Your task to perform on an android device: open device folders in google photos Image 0: 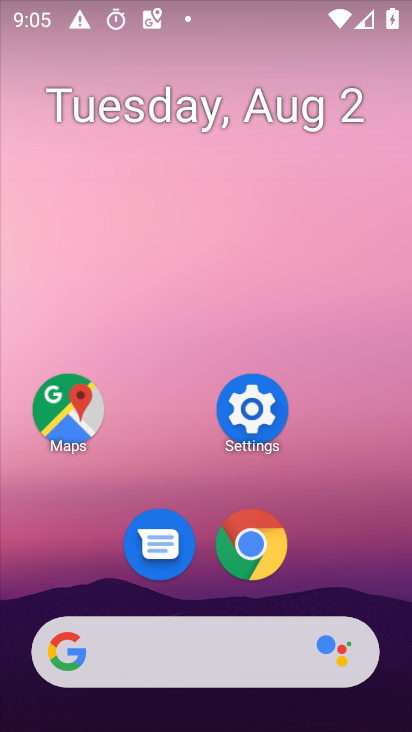
Step 0: drag from (206, 622) to (256, 89)
Your task to perform on an android device: open device folders in google photos Image 1: 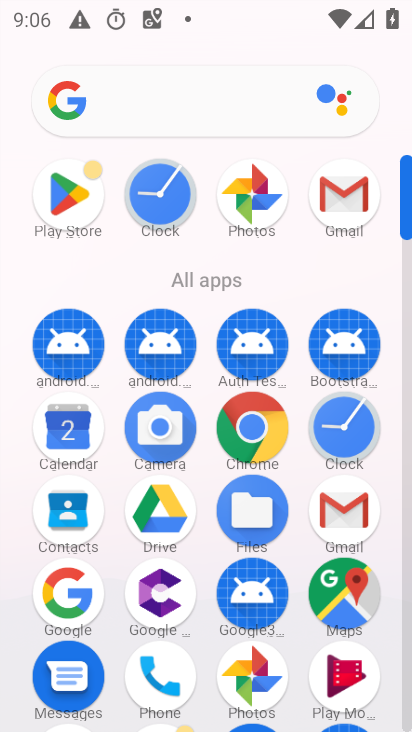
Step 1: click (260, 196)
Your task to perform on an android device: open device folders in google photos Image 2: 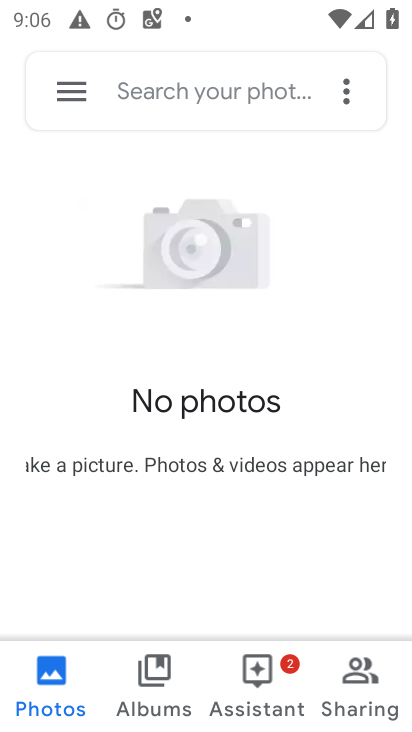
Step 2: click (69, 91)
Your task to perform on an android device: open device folders in google photos Image 3: 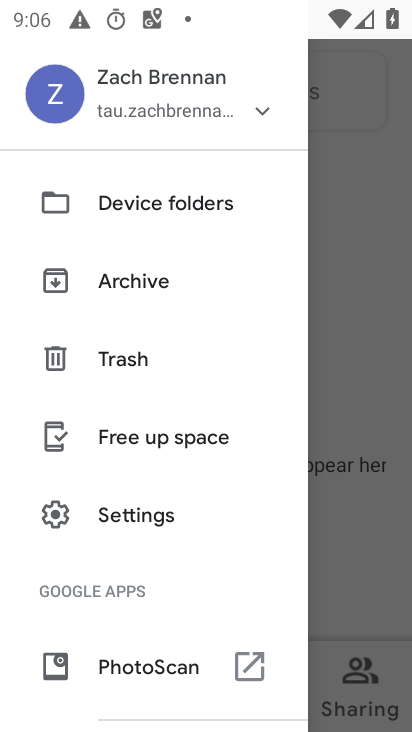
Step 3: click (131, 198)
Your task to perform on an android device: open device folders in google photos Image 4: 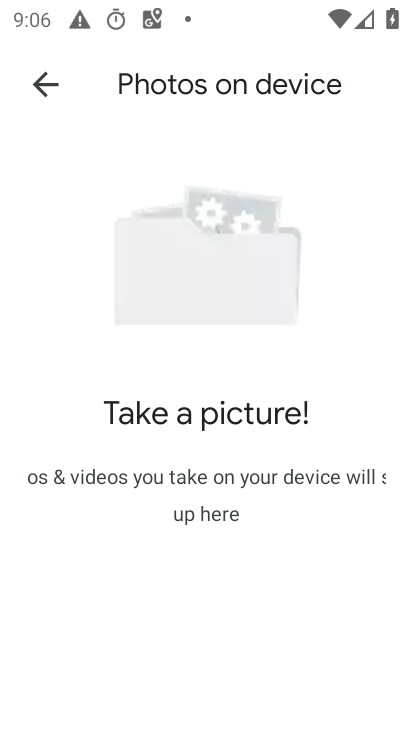
Step 4: task complete